Your task to perform on an android device: open app "LinkedIn" (install if not already installed), go to login, and select forgot password Image 0: 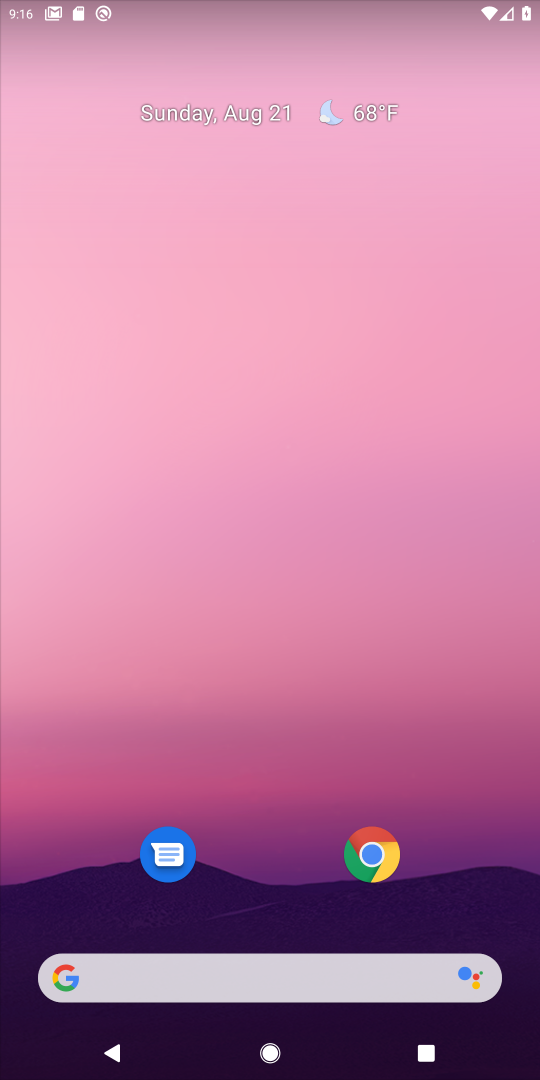
Step 0: drag from (284, 947) to (192, 71)
Your task to perform on an android device: open app "LinkedIn" (install if not already installed), go to login, and select forgot password Image 1: 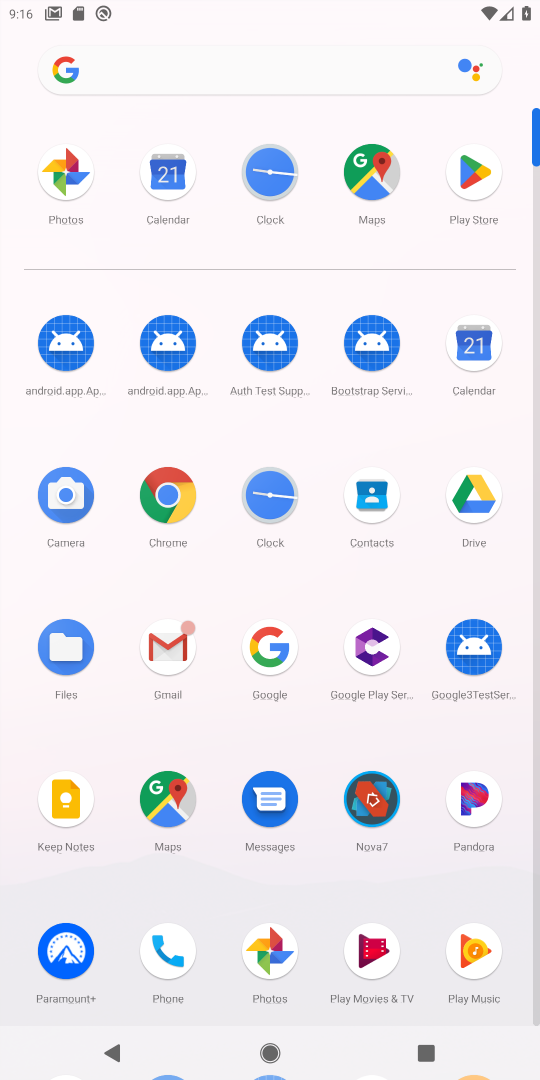
Step 1: click (464, 217)
Your task to perform on an android device: open app "LinkedIn" (install if not already installed), go to login, and select forgot password Image 2: 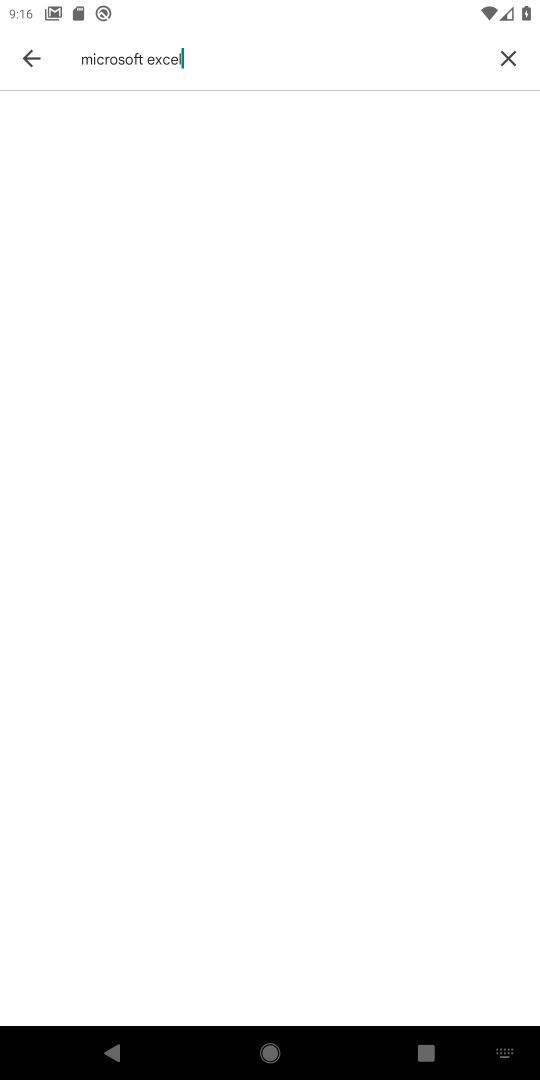
Step 2: click (494, 80)
Your task to perform on an android device: open app "LinkedIn" (install if not already installed), go to login, and select forgot password Image 3: 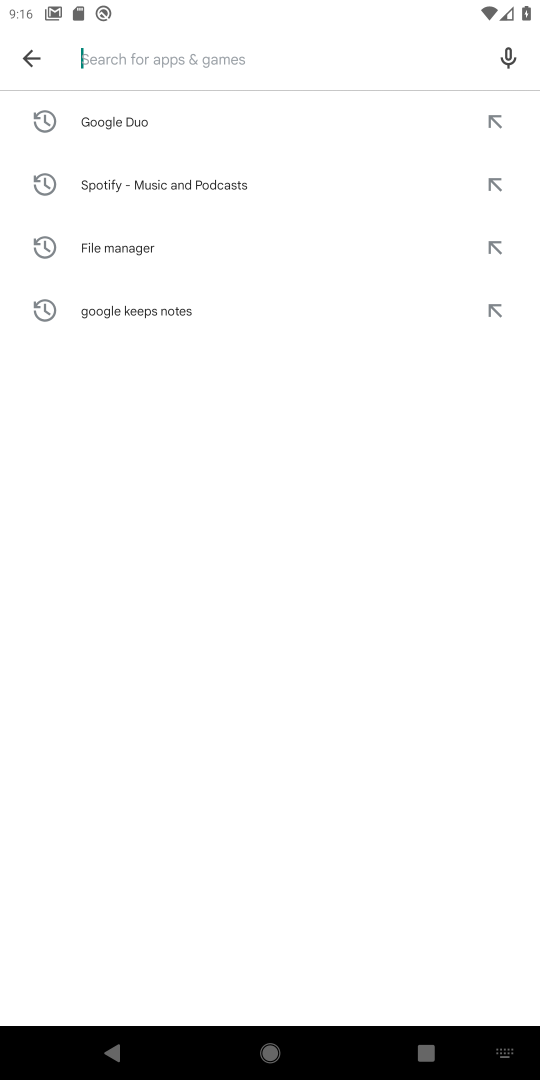
Step 3: type "linkedin"
Your task to perform on an android device: open app "LinkedIn" (install if not already installed), go to login, and select forgot password Image 4: 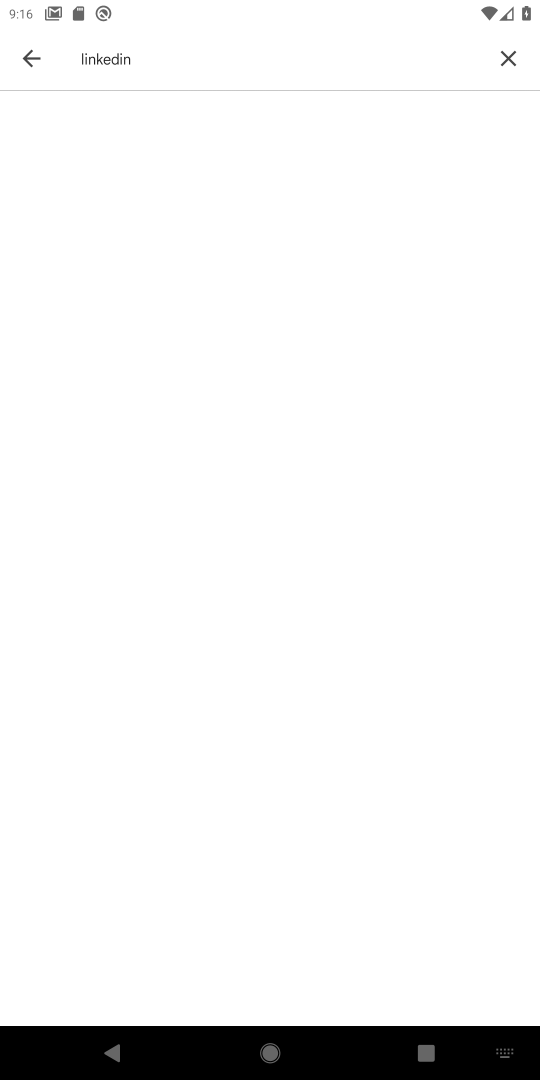
Step 4: task complete